Your task to perform on an android device: Go to calendar. Show me events next week Image 0: 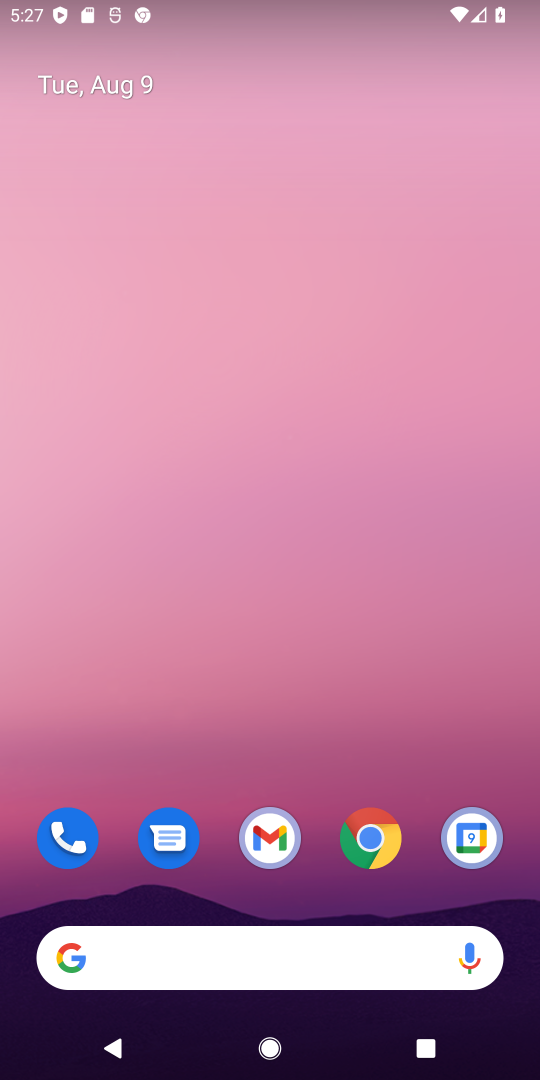
Step 0: drag from (423, 820) to (330, 52)
Your task to perform on an android device: Go to calendar. Show me events next week Image 1: 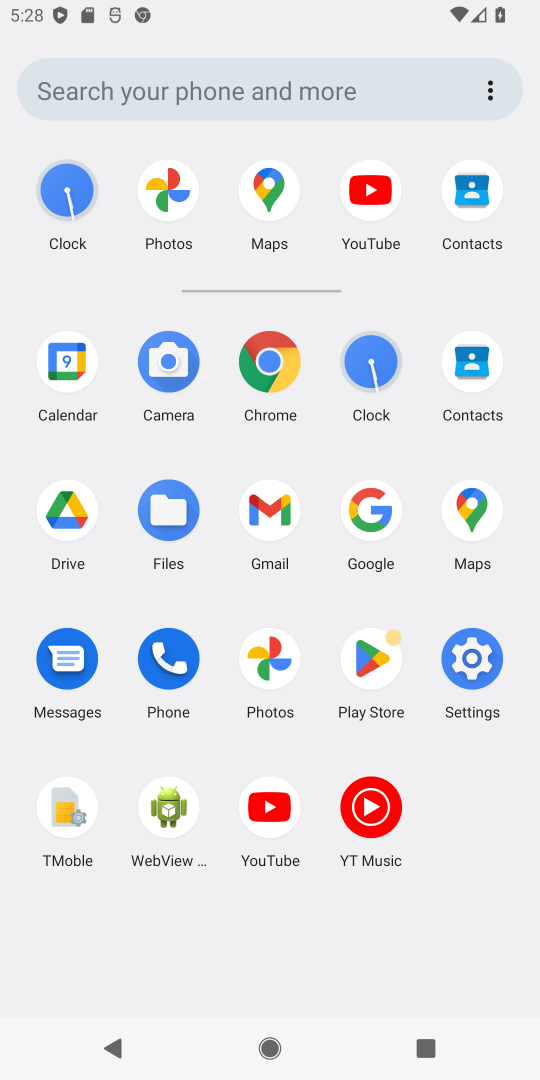
Step 1: click (67, 352)
Your task to perform on an android device: Go to calendar. Show me events next week Image 2: 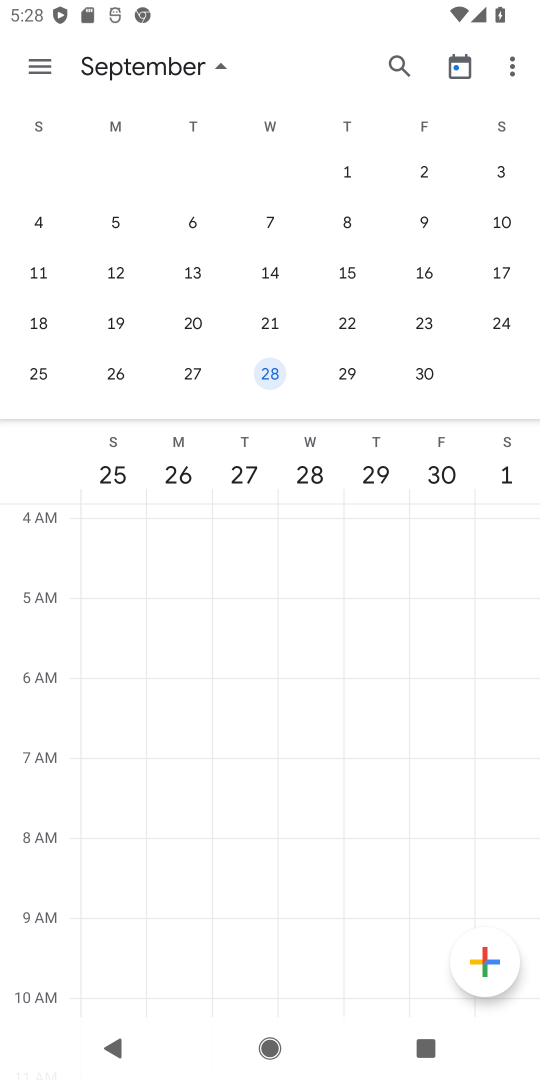
Step 2: drag from (64, 259) to (523, 298)
Your task to perform on an android device: Go to calendar. Show me events next week Image 3: 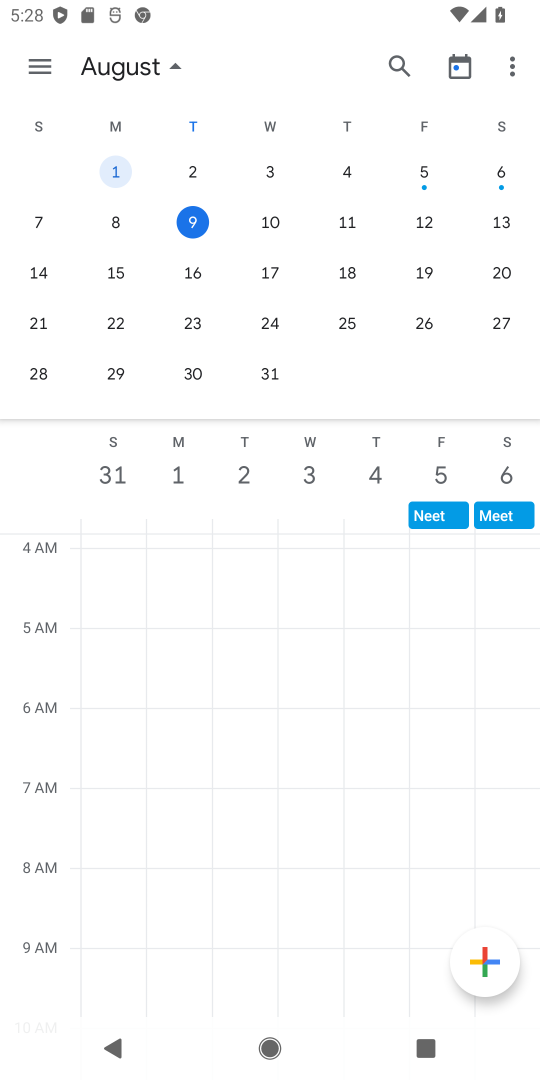
Step 3: click (275, 264)
Your task to perform on an android device: Go to calendar. Show me events next week Image 4: 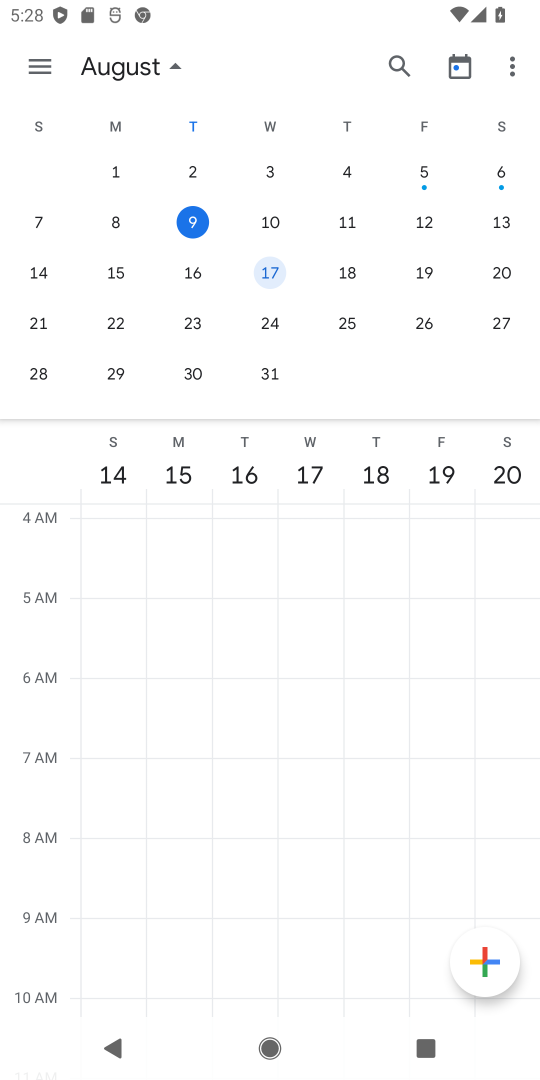
Step 4: task complete